Your task to perform on an android device: turn smart compose on in the gmail app Image 0: 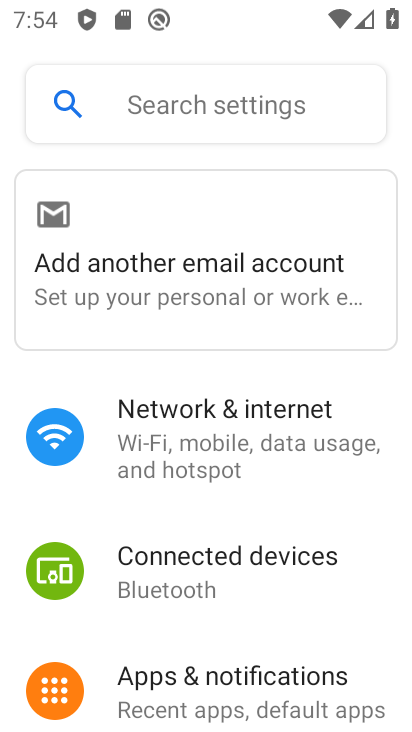
Step 0: press back button
Your task to perform on an android device: turn smart compose on in the gmail app Image 1: 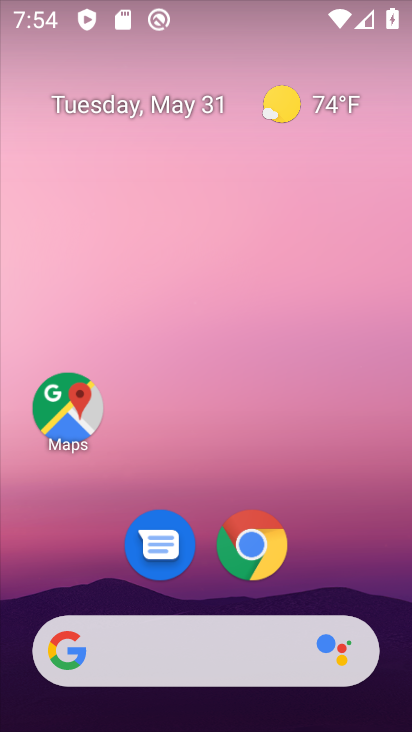
Step 1: drag from (341, 538) to (394, 485)
Your task to perform on an android device: turn smart compose on in the gmail app Image 2: 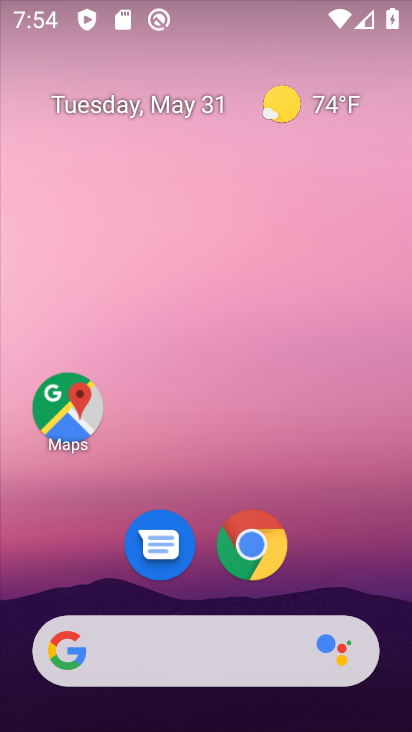
Step 2: drag from (320, 532) to (215, 22)
Your task to perform on an android device: turn smart compose on in the gmail app Image 3: 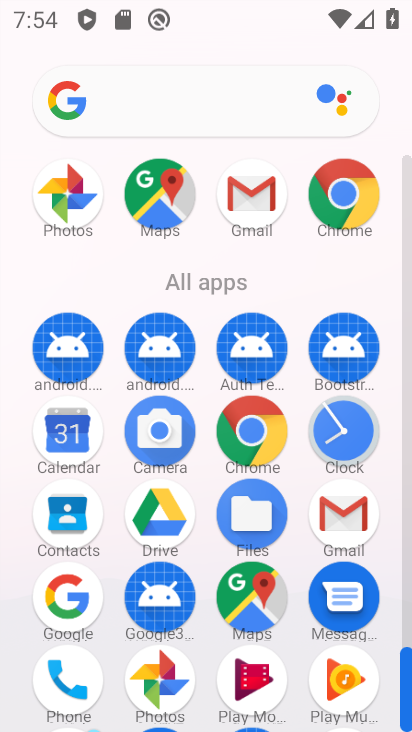
Step 3: click (252, 188)
Your task to perform on an android device: turn smart compose on in the gmail app Image 4: 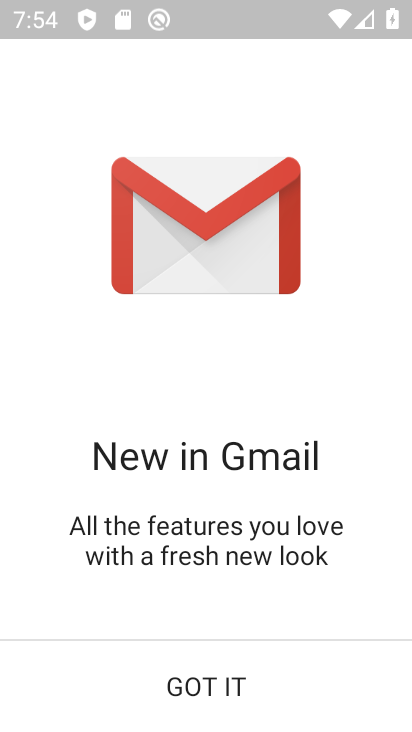
Step 4: click (213, 690)
Your task to perform on an android device: turn smart compose on in the gmail app Image 5: 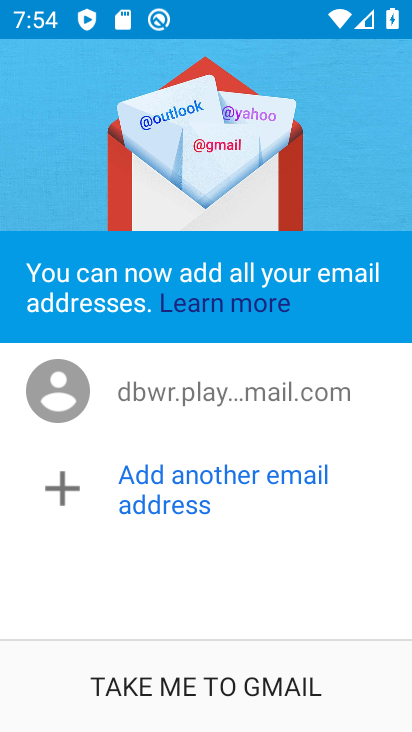
Step 5: click (214, 680)
Your task to perform on an android device: turn smart compose on in the gmail app Image 6: 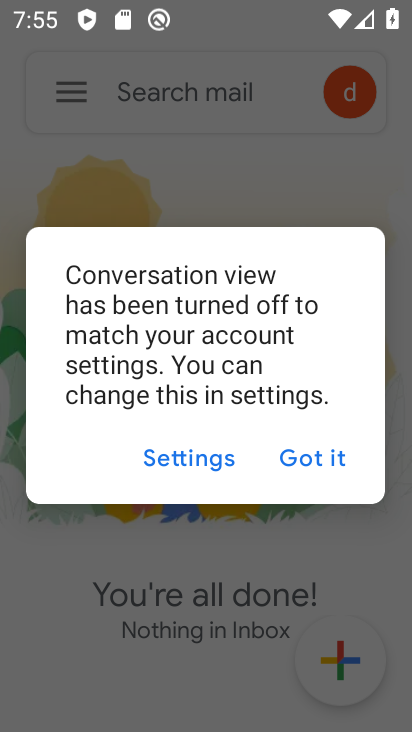
Step 6: click (312, 452)
Your task to perform on an android device: turn smart compose on in the gmail app Image 7: 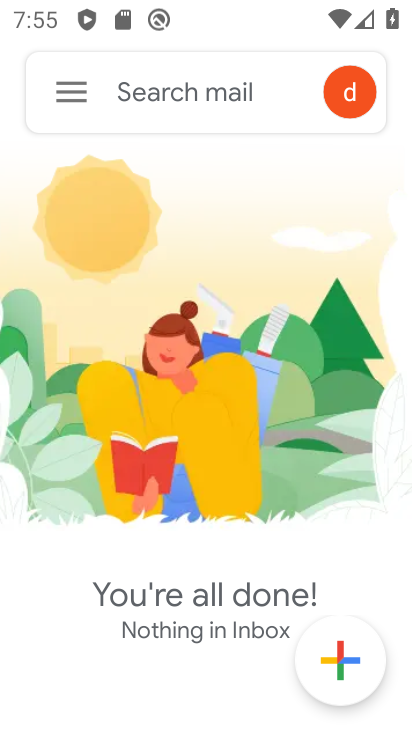
Step 7: click (62, 88)
Your task to perform on an android device: turn smart compose on in the gmail app Image 8: 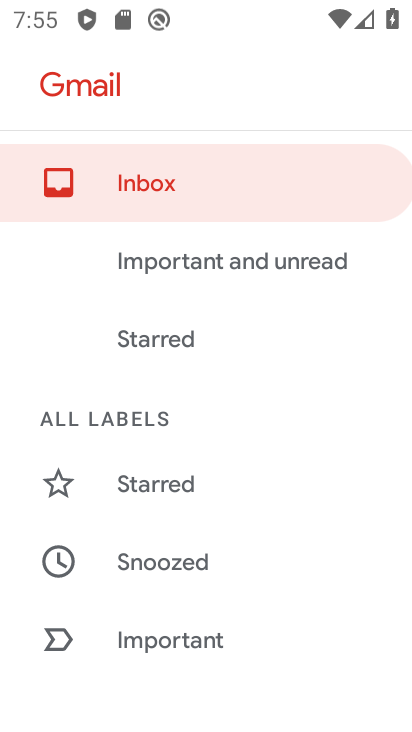
Step 8: drag from (284, 560) to (291, 213)
Your task to perform on an android device: turn smart compose on in the gmail app Image 9: 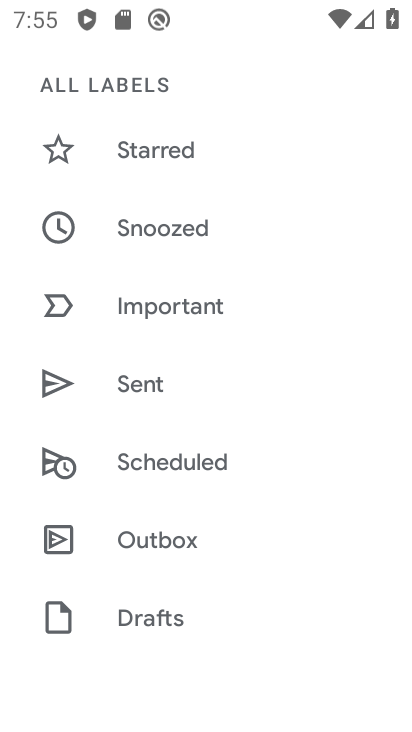
Step 9: drag from (244, 629) to (243, 192)
Your task to perform on an android device: turn smart compose on in the gmail app Image 10: 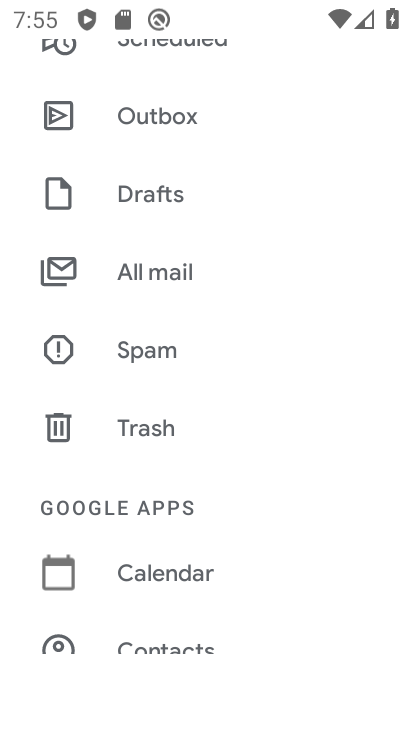
Step 10: drag from (225, 558) to (247, 107)
Your task to perform on an android device: turn smart compose on in the gmail app Image 11: 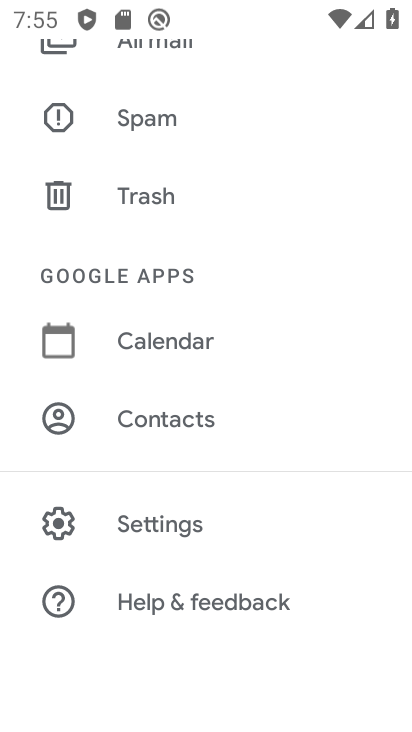
Step 11: click (167, 513)
Your task to perform on an android device: turn smart compose on in the gmail app Image 12: 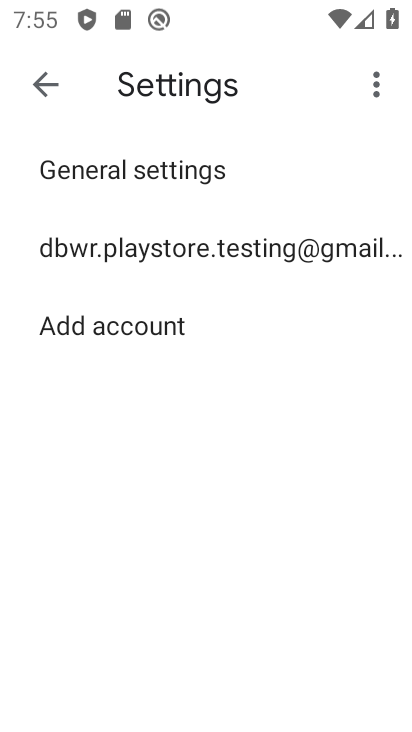
Step 12: click (263, 248)
Your task to perform on an android device: turn smart compose on in the gmail app Image 13: 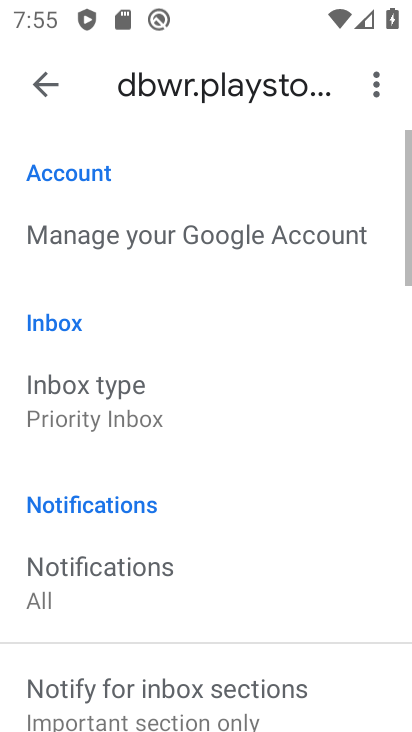
Step 13: task complete